Your task to perform on an android device: change notifications settings Image 0: 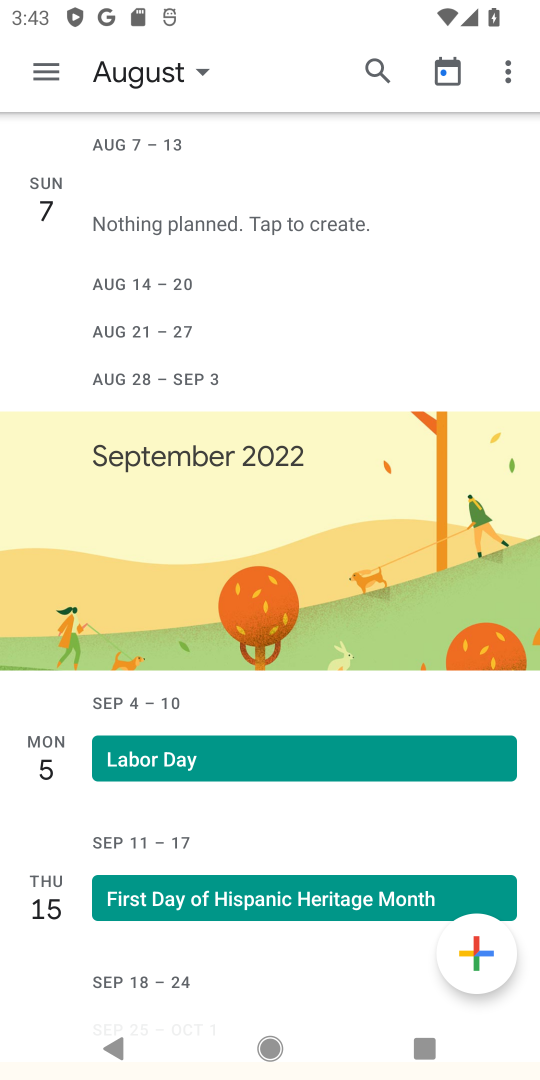
Step 0: press home button
Your task to perform on an android device: change notifications settings Image 1: 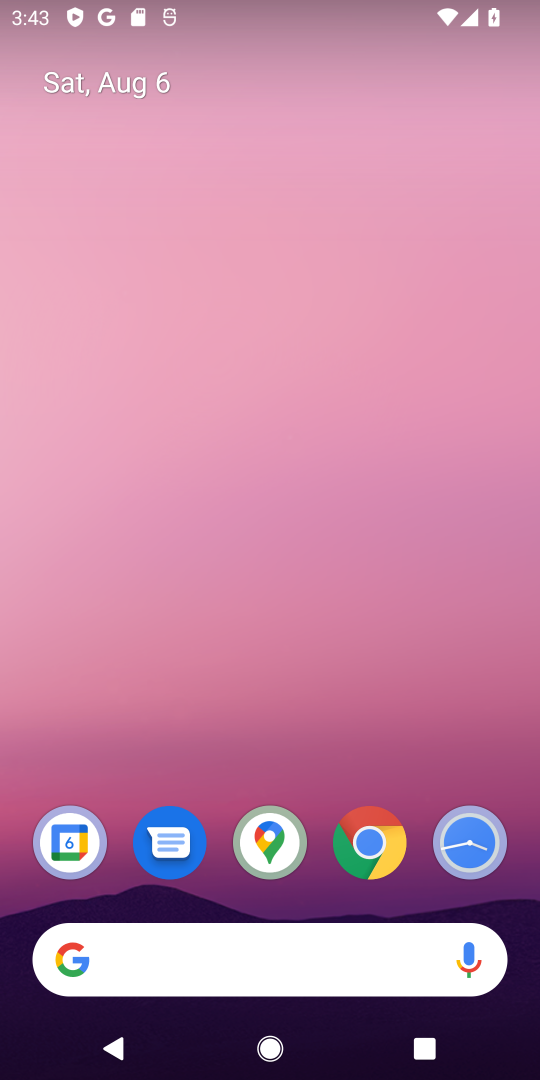
Step 1: drag from (524, 1029) to (433, 153)
Your task to perform on an android device: change notifications settings Image 2: 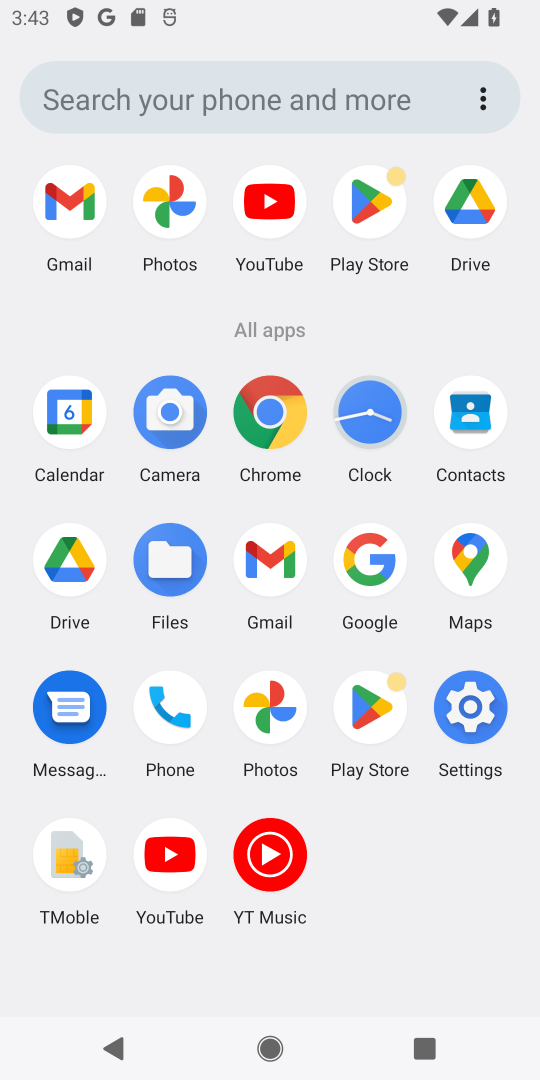
Step 2: click (459, 689)
Your task to perform on an android device: change notifications settings Image 3: 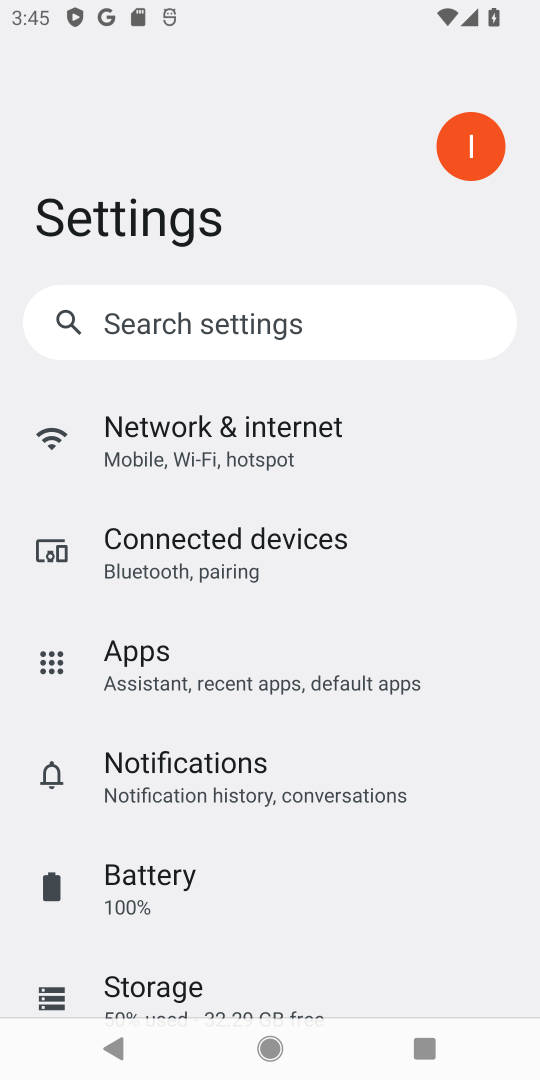
Step 3: click (236, 776)
Your task to perform on an android device: change notifications settings Image 4: 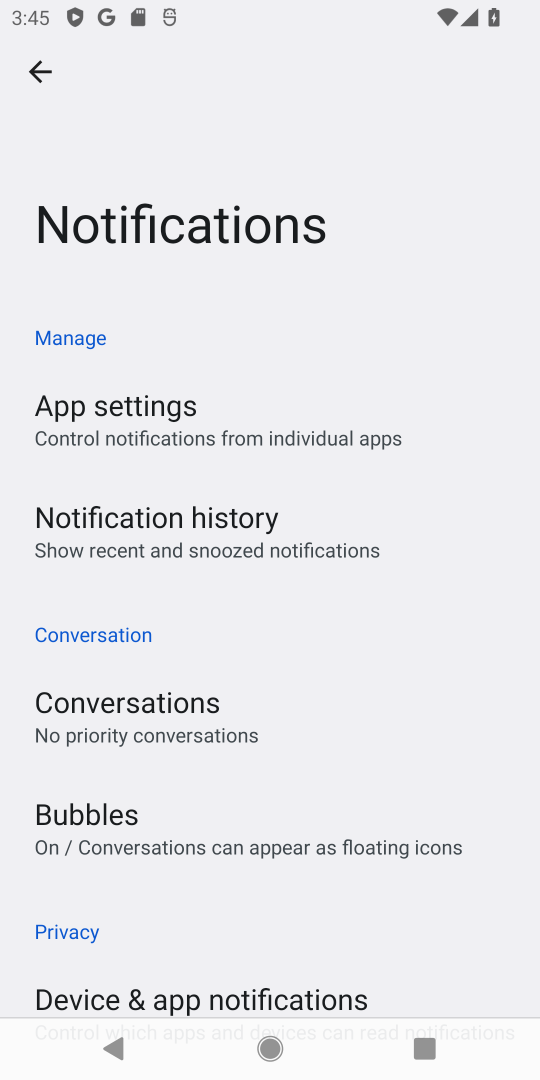
Step 4: task complete